Your task to perform on an android device: Find coffee shops on Maps Image 0: 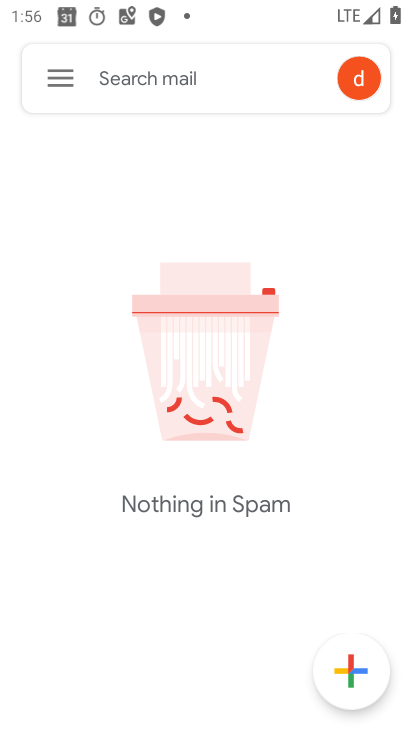
Step 0: press home button
Your task to perform on an android device: Find coffee shops on Maps Image 1: 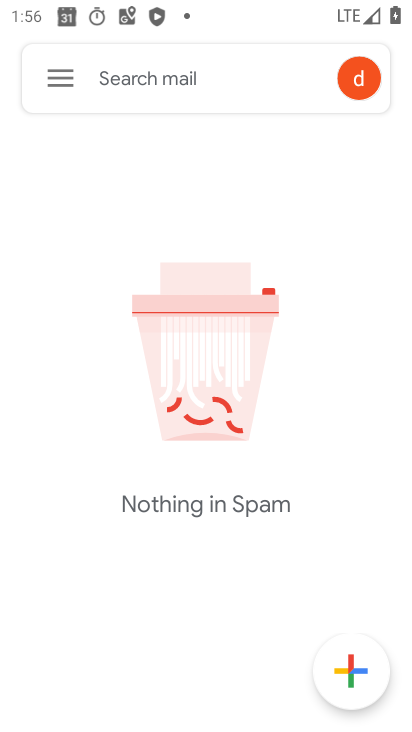
Step 1: press home button
Your task to perform on an android device: Find coffee shops on Maps Image 2: 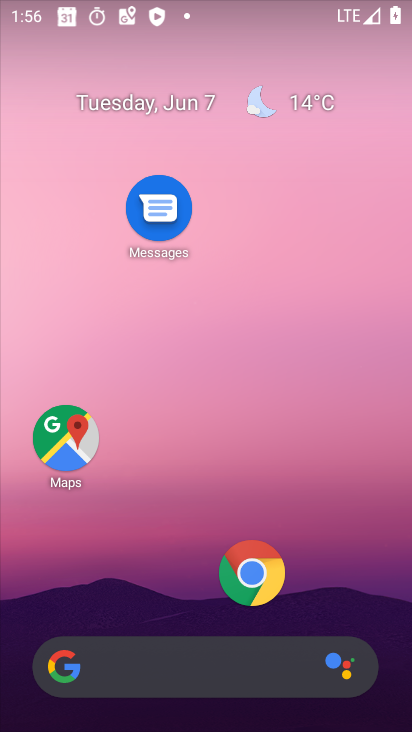
Step 2: click (66, 434)
Your task to perform on an android device: Find coffee shops on Maps Image 3: 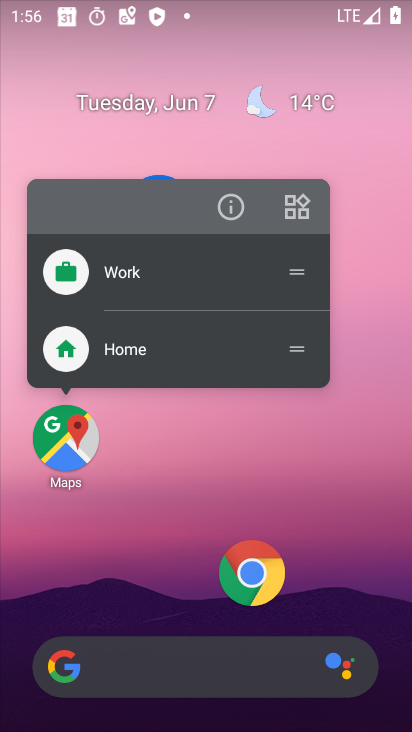
Step 3: click (62, 443)
Your task to perform on an android device: Find coffee shops on Maps Image 4: 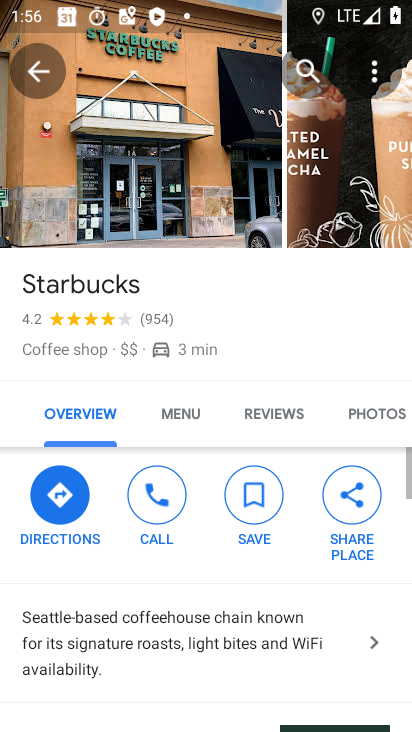
Step 4: click (40, 63)
Your task to perform on an android device: Find coffee shops on Maps Image 5: 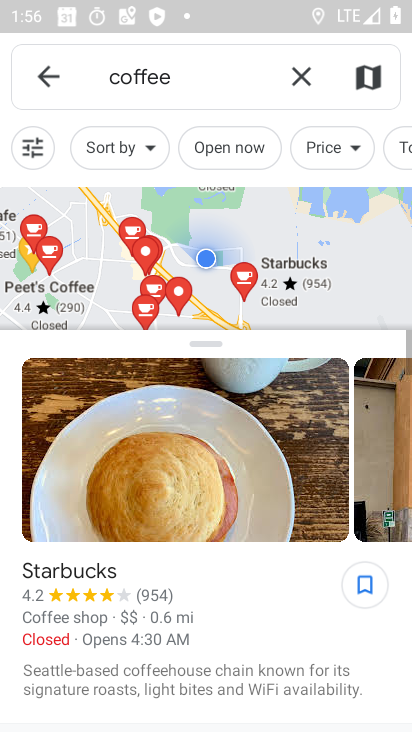
Step 5: click (213, 603)
Your task to perform on an android device: Find coffee shops on Maps Image 6: 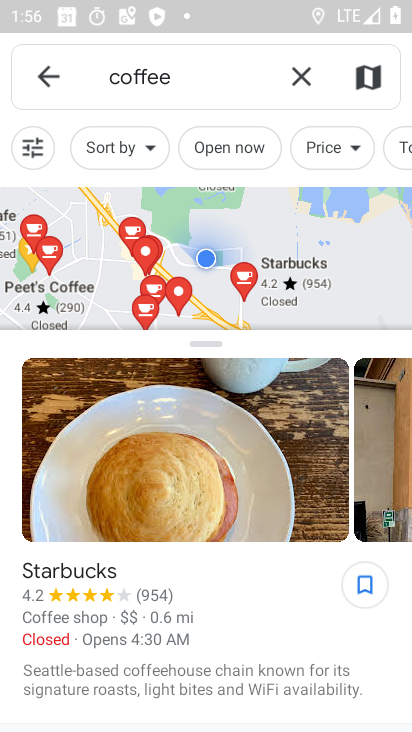
Step 6: click (240, 194)
Your task to perform on an android device: Find coffee shops on Maps Image 7: 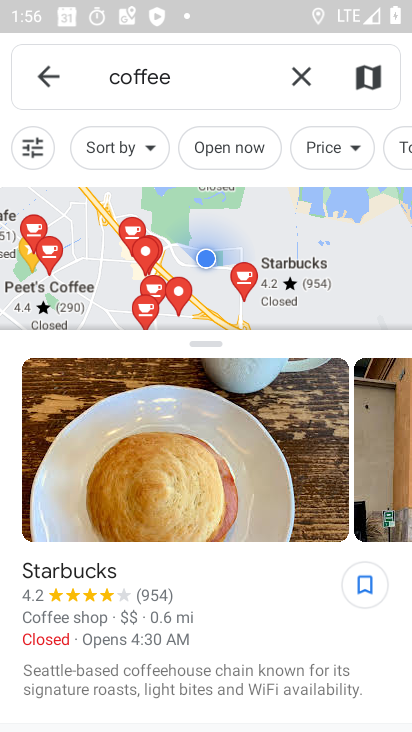
Step 7: drag from (233, 684) to (248, 116)
Your task to perform on an android device: Find coffee shops on Maps Image 8: 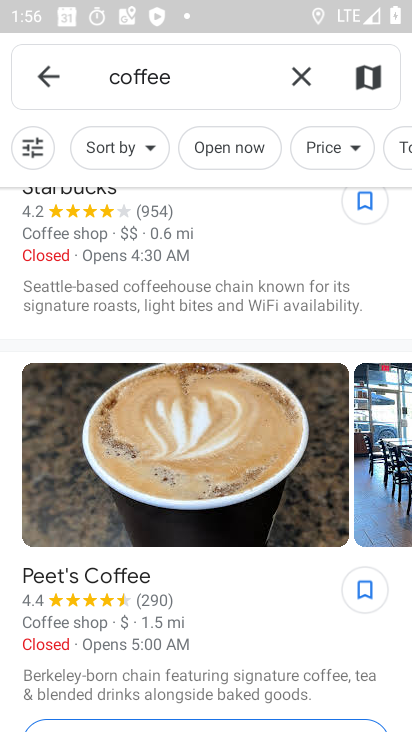
Step 8: drag from (234, 532) to (253, 143)
Your task to perform on an android device: Find coffee shops on Maps Image 9: 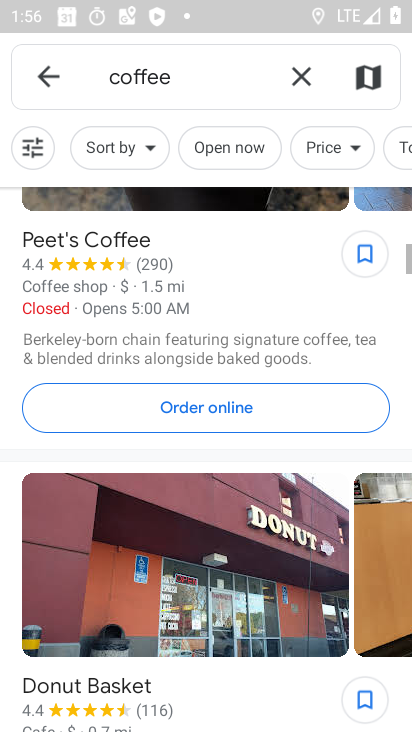
Step 9: click (256, 123)
Your task to perform on an android device: Find coffee shops on Maps Image 10: 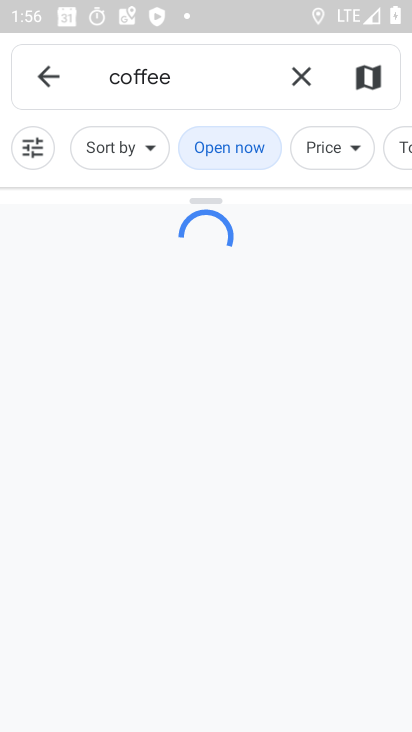
Step 10: task complete